Your task to perform on an android device: turn on the 24-hour format for clock Image 0: 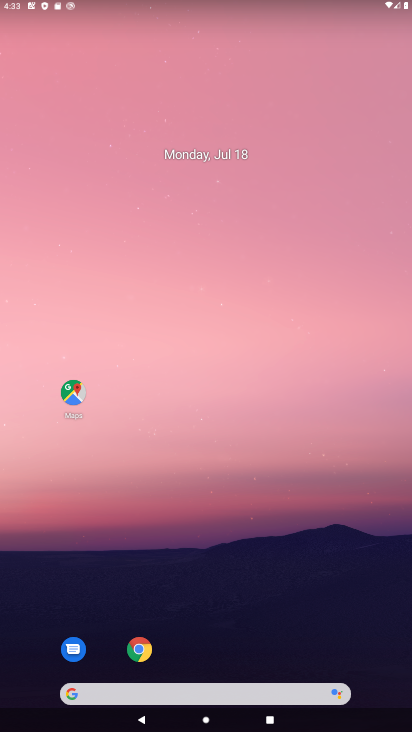
Step 0: drag from (225, 620) to (262, 17)
Your task to perform on an android device: turn on the 24-hour format for clock Image 1: 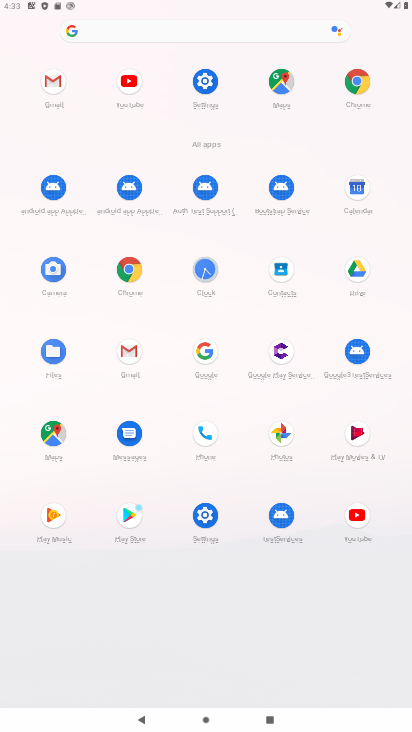
Step 1: click (199, 274)
Your task to perform on an android device: turn on the 24-hour format for clock Image 2: 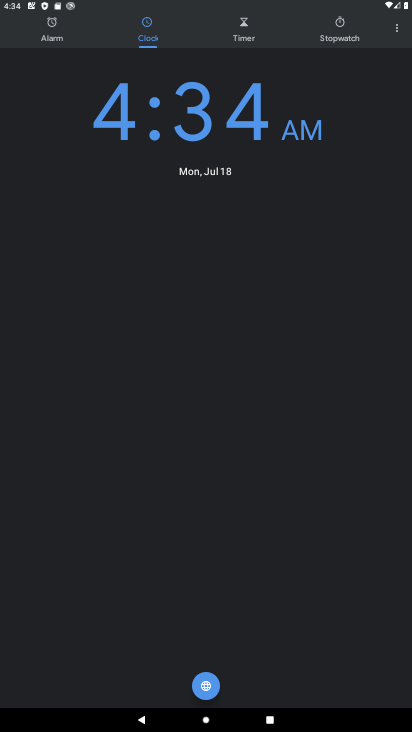
Step 2: click (394, 40)
Your task to perform on an android device: turn on the 24-hour format for clock Image 3: 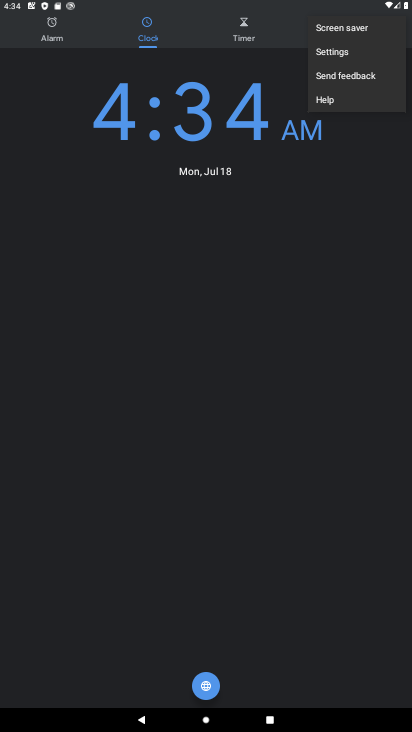
Step 3: click (340, 59)
Your task to perform on an android device: turn on the 24-hour format for clock Image 4: 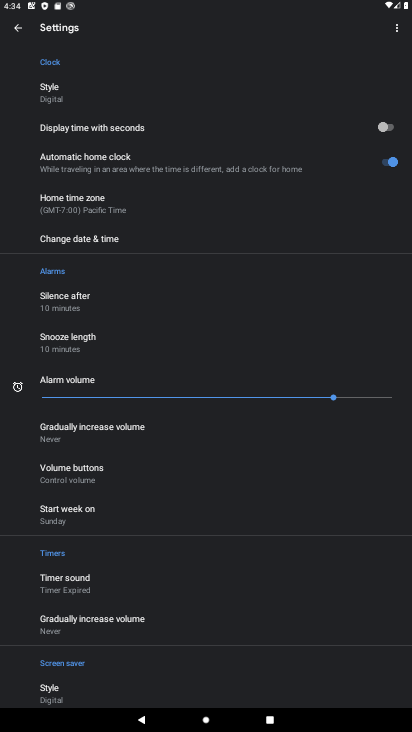
Step 4: click (148, 245)
Your task to perform on an android device: turn on the 24-hour format for clock Image 5: 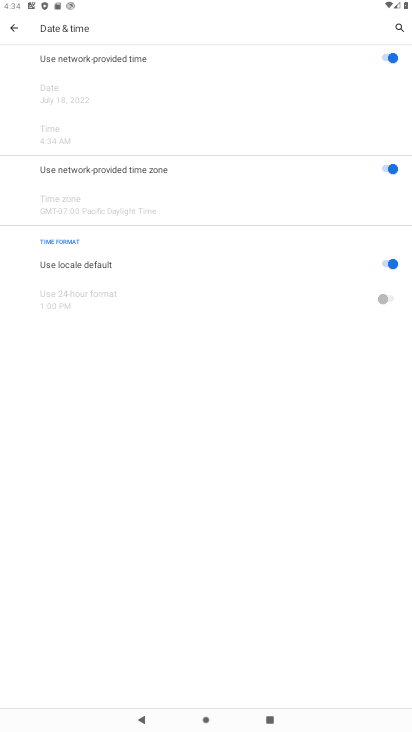
Step 5: click (390, 263)
Your task to perform on an android device: turn on the 24-hour format for clock Image 6: 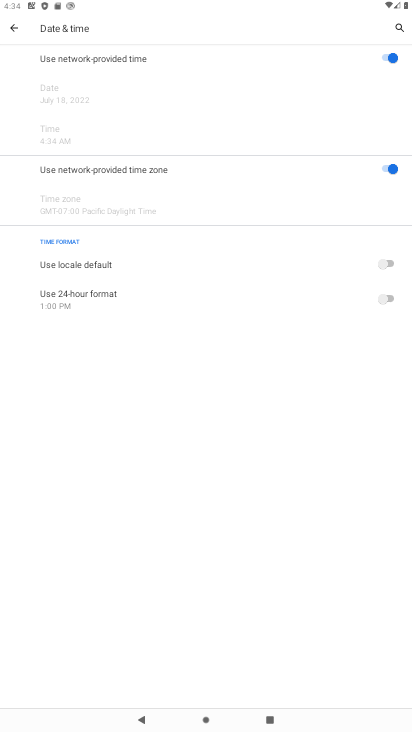
Step 6: click (395, 300)
Your task to perform on an android device: turn on the 24-hour format for clock Image 7: 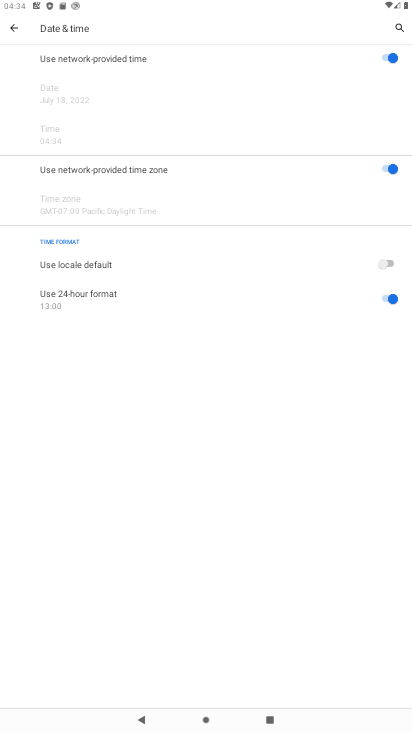
Step 7: task complete